Your task to perform on an android device: Go to sound settings Image 0: 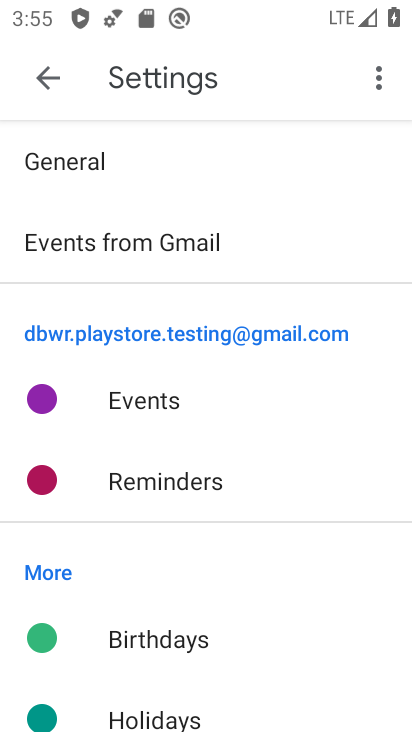
Step 0: press home button
Your task to perform on an android device: Go to sound settings Image 1: 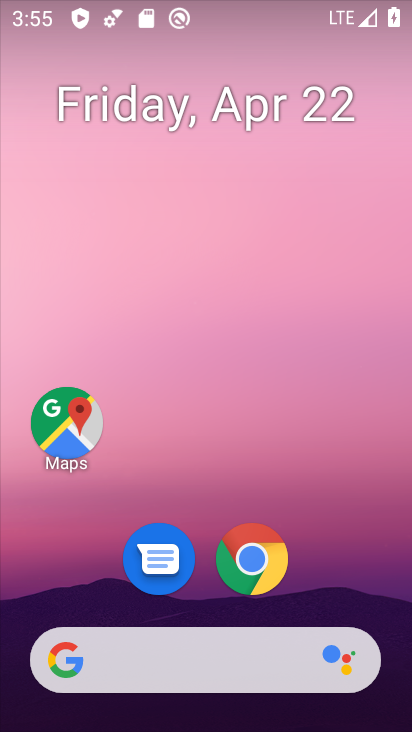
Step 1: drag from (328, 602) to (185, 46)
Your task to perform on an android device: Go to sound settings Image 2: 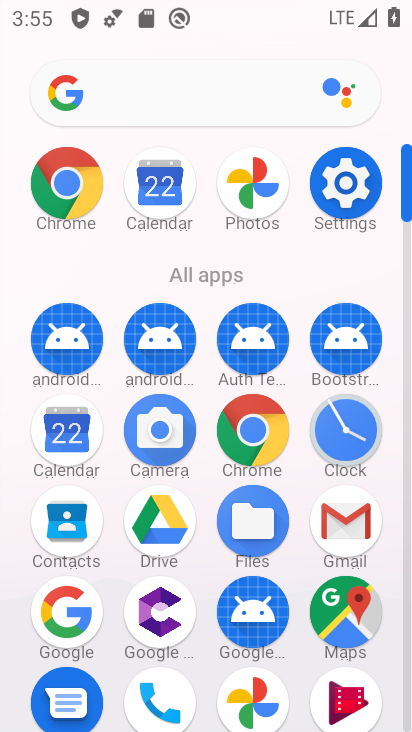
Step 2: click (360, 183)
Your task to perform on an android device: Go to sound settings Image 3: 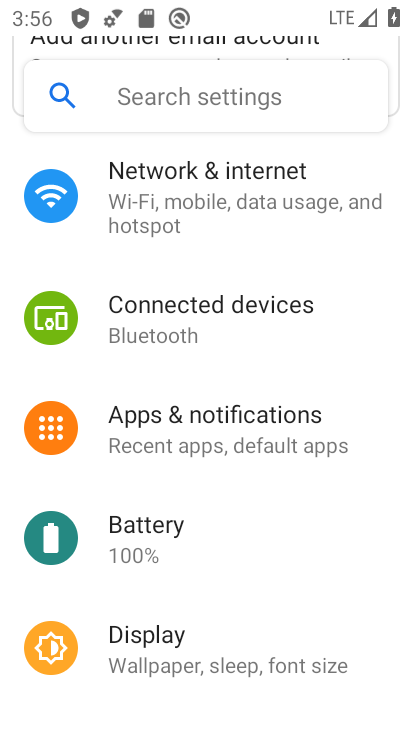
Step 3: drag from (212, 570) to (183, 171)
Your task to perform on an android device: Go to sound settings Image 4: 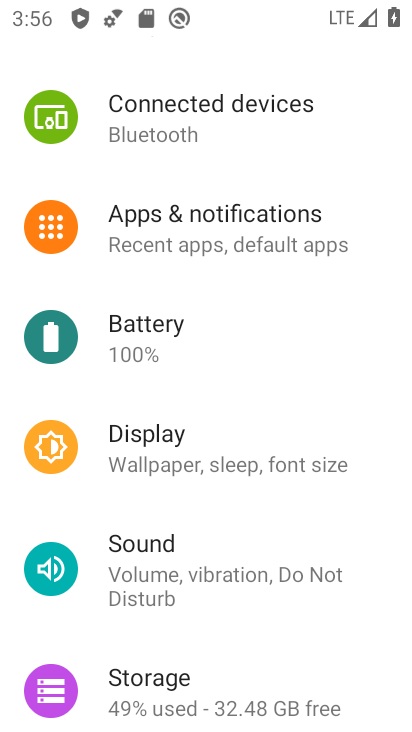
Step 4: click (176, 555)
Your task to perform on an android device: Go to sound settings Image 5: 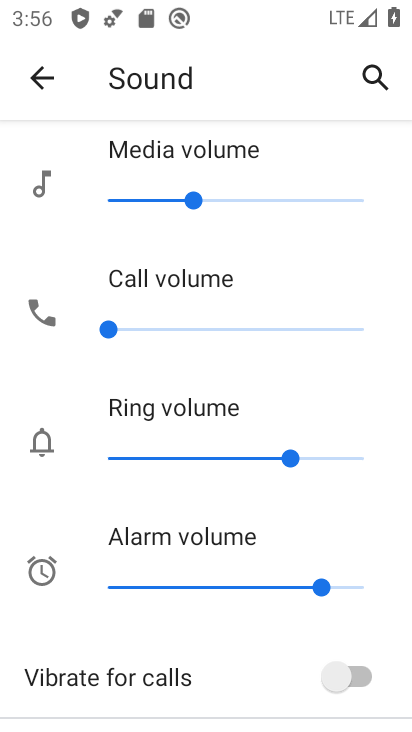
Step 5: task complete